Your task to perform on an android device: change alarm snooze length Image 0: 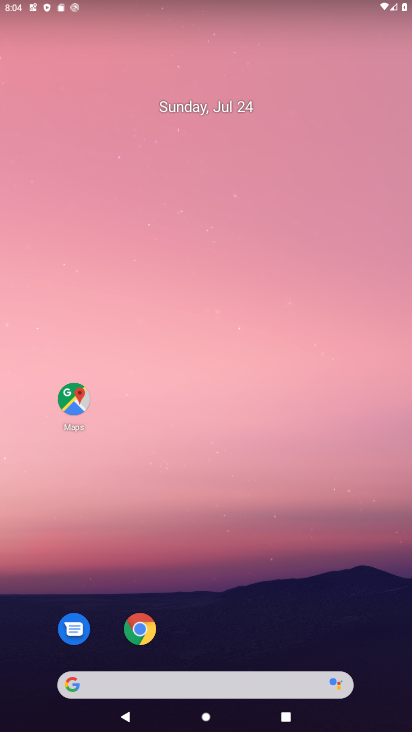
Step 0: drag from (230, 642) to (343, 139)
Your task to perform on an android device: change alarm snooze length Image 1: 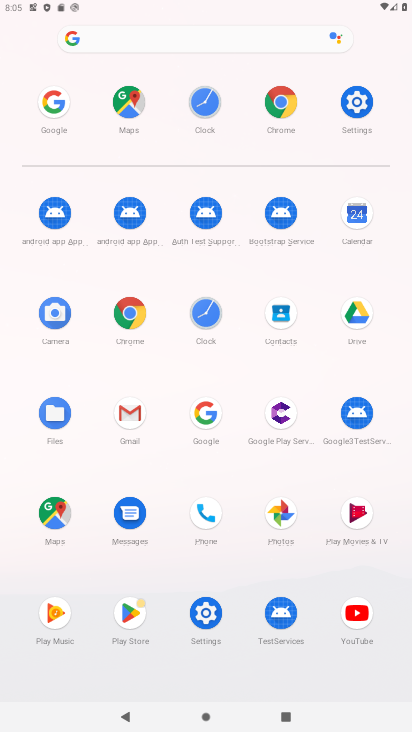
Step 1: click (213, 303)
Your task to perform on an android device: change alarm snooze length Image 2: 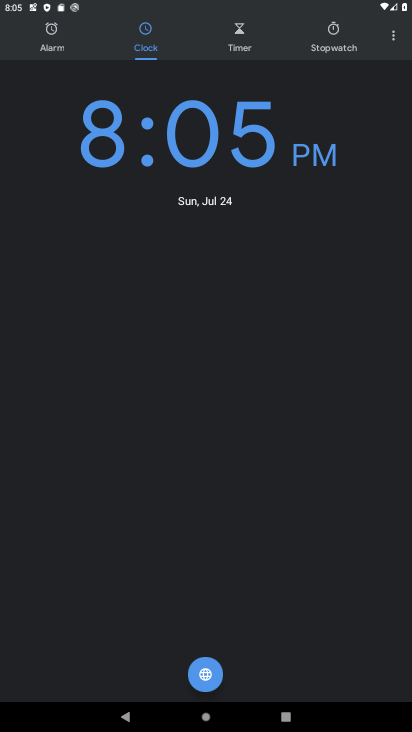
Step 2: click (388, 37)
Your task to perform on an android device: change alarm snooze length Image 3: 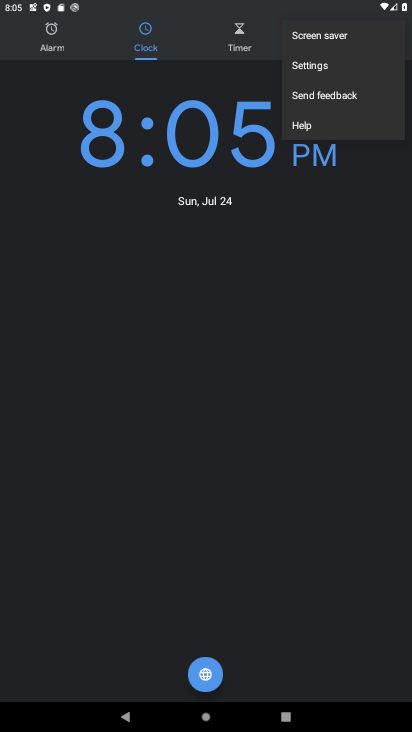
Step 3: click (325, 73)
Your task to perform on an android device: change alarm snooze length Image 4: 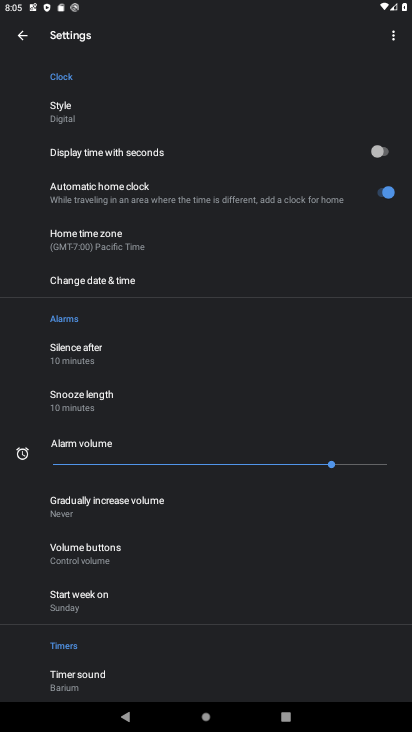
Step 4: click (90, 406)
Your task to perform on an android device: change alarm snooze length Image 5: 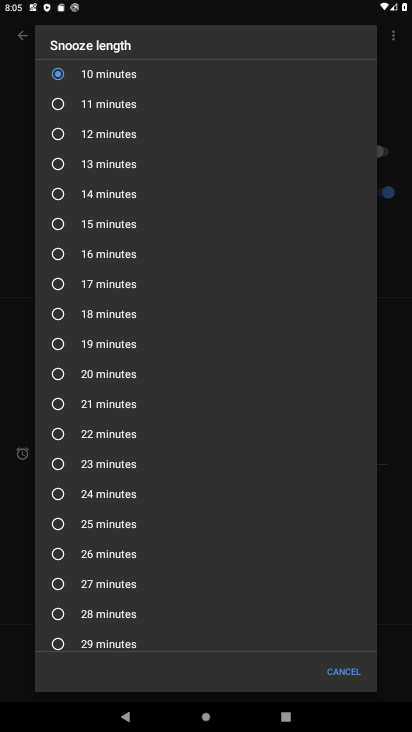
Step 5: click (63, 129)
Your task to perform on an android device: change alarm snooze length Image 6: 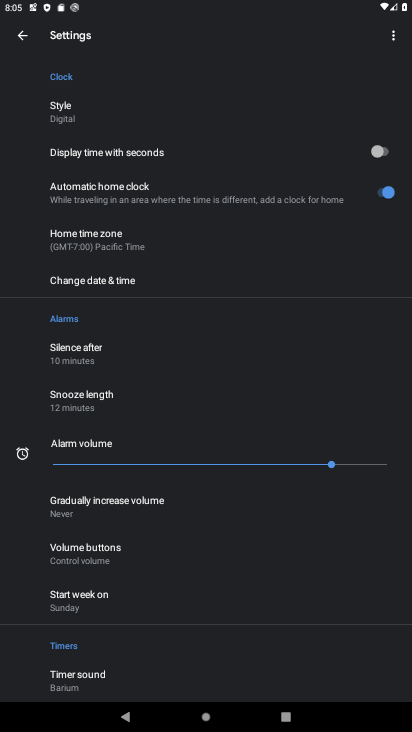
Step 6: task complete